Your task to perform on an android device: What's on my calendar today? Image 0: 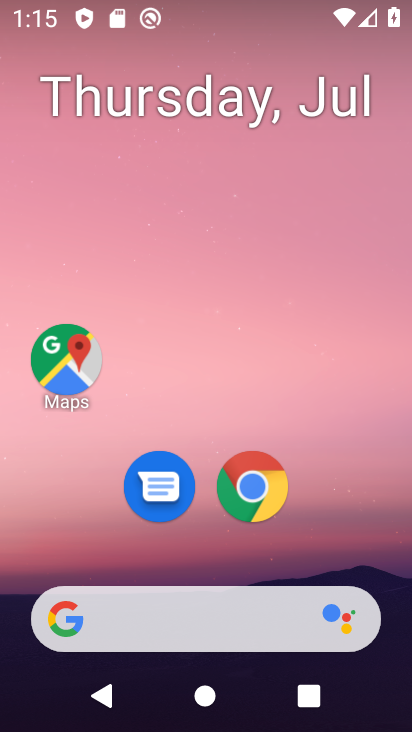
Step 0: drag from (111, 513) to (237, 12)
Your task to perform on an android device: What's on my calendar today? Image 1: 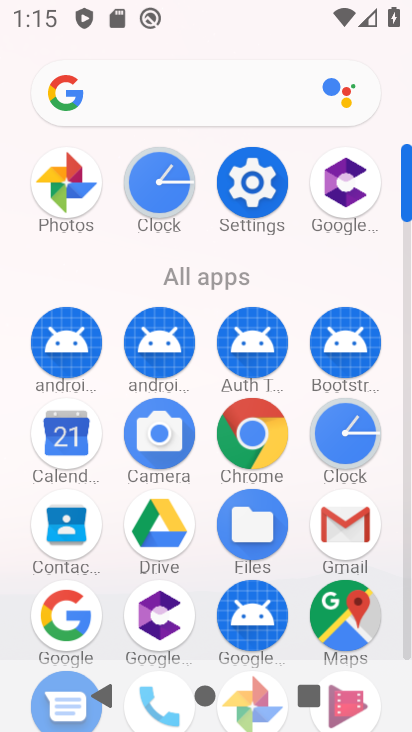
Step 1: click (61, 448)
Your task to perform on an android device: What's on my calendar today? Image 2: 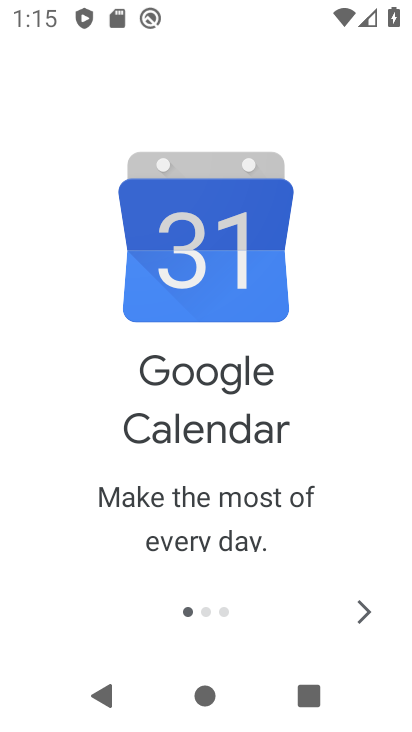
Step 2: click (367, 611)
Your task to perform on an android device: What's on my calendar today? Image 3: 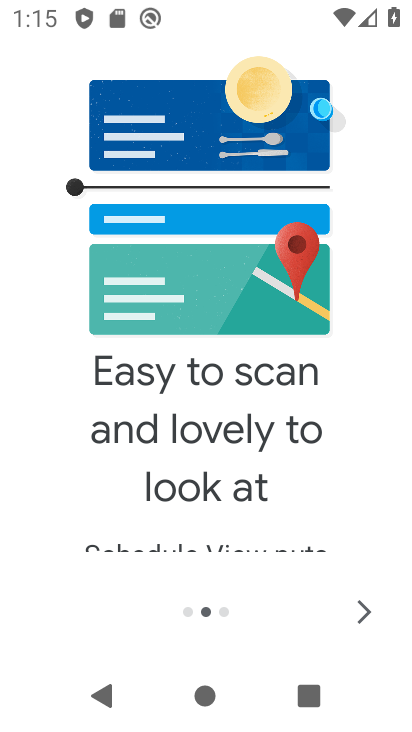
Step 3: click (382, 599)
Your task to perform on an android device: What's on my calendar today? Image 4: 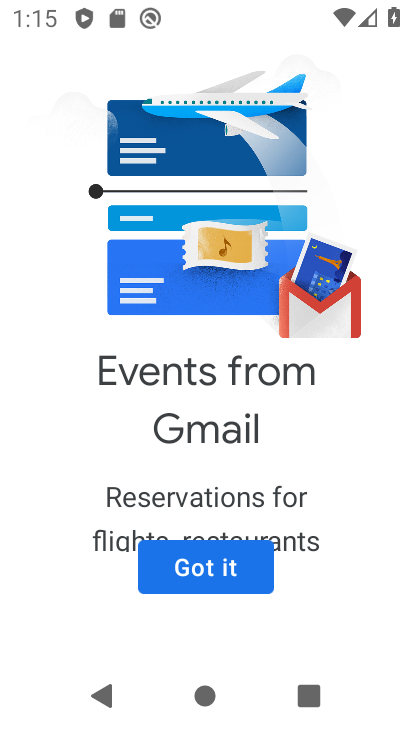
Step 4: click (149, 565)
Your task to perform on an android device: What's on my calendar today? Image 5: 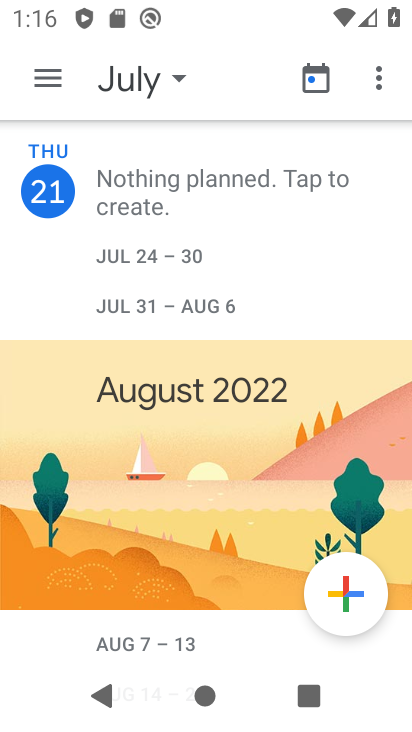
Step 5: task complete